Your task to perform on an android device: Open Google Maps Image 0: 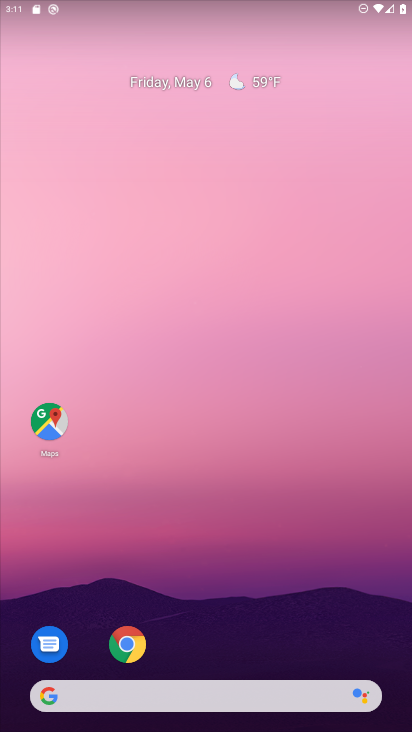
Step 0: drag from (209, 724) to (210, 242)
Your task to perform on an android device: Open Google Maps Image 1: 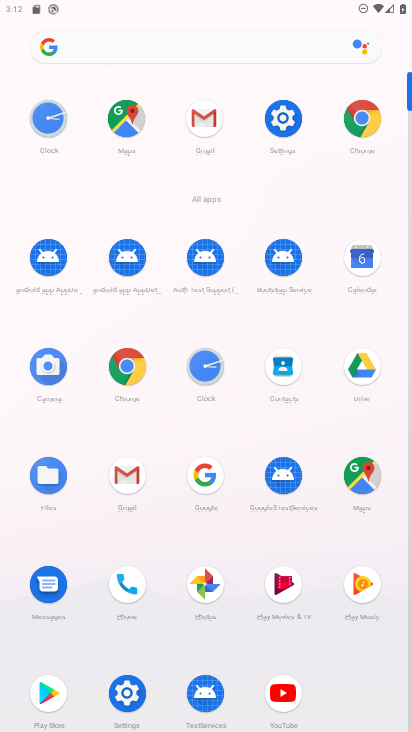
Step 1: click (360, 483)
Your task to perform on an android device: Open Google Maps Image 2: 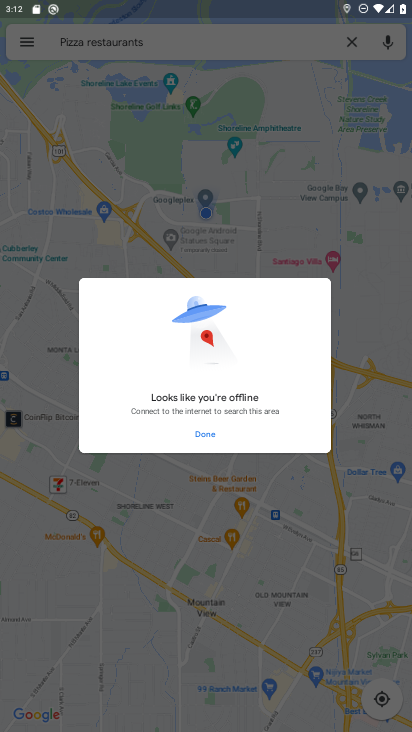
Step 2: task complete